Your task to perform on an android device: check data usage Image 0: 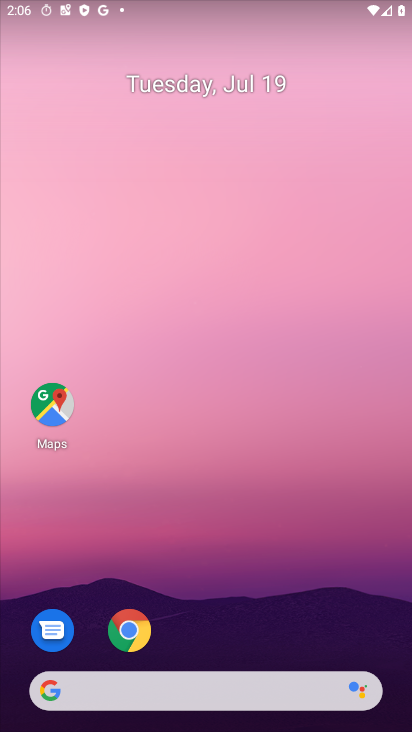
Step 0: drag from (294, 597) to (314, 0)
Your task to perform on an android device: check data usage Image 1: 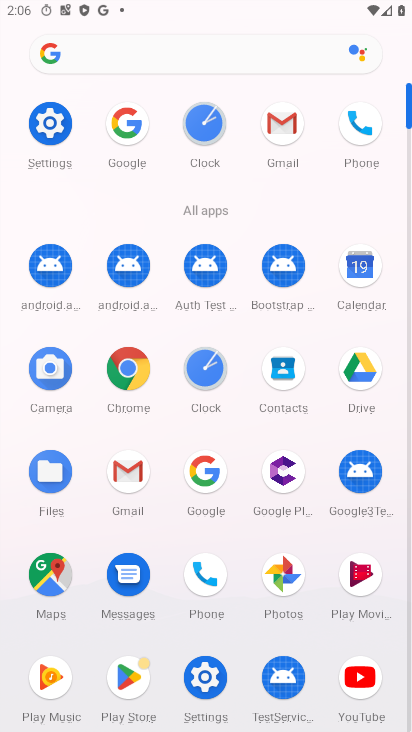
Step 1: click (36, 128)
Your task to perform on an android device: check data usage Image 2: 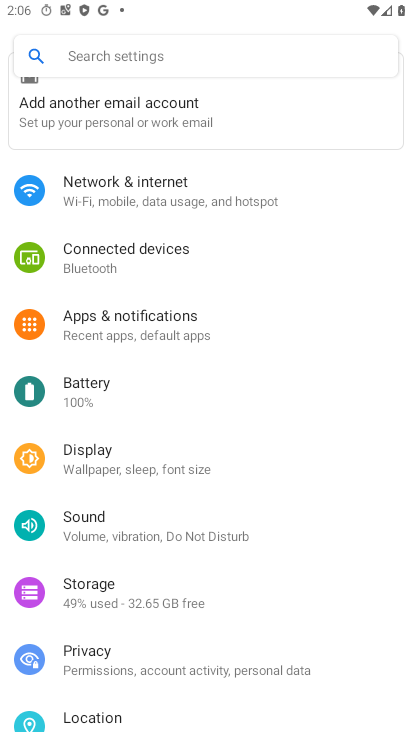
Step 2: click (166, 209)
Your task to perform on an android device: check data usage Image 3: 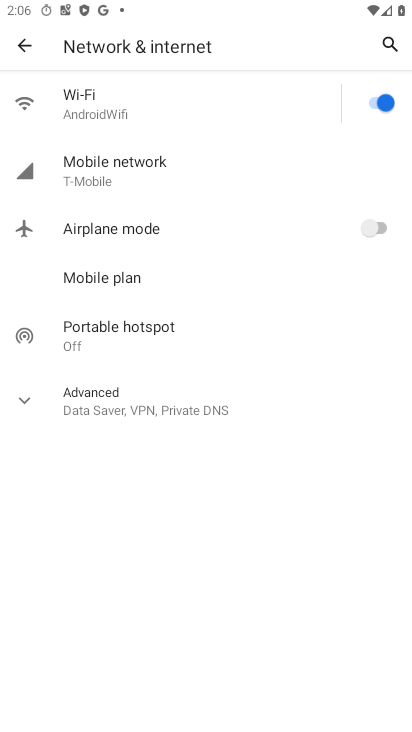
Step 3: click (90, 183)
Your task to perform on an android device: check data usage Image 4: 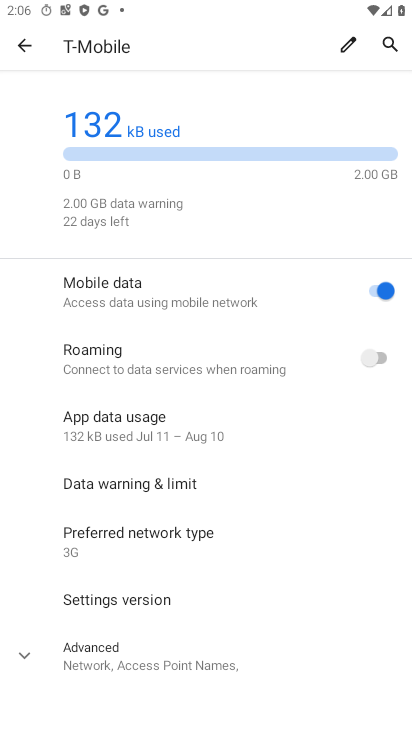
Step 4: click (107, 423)
Your task to perform on an android device: check data usage Image 5: 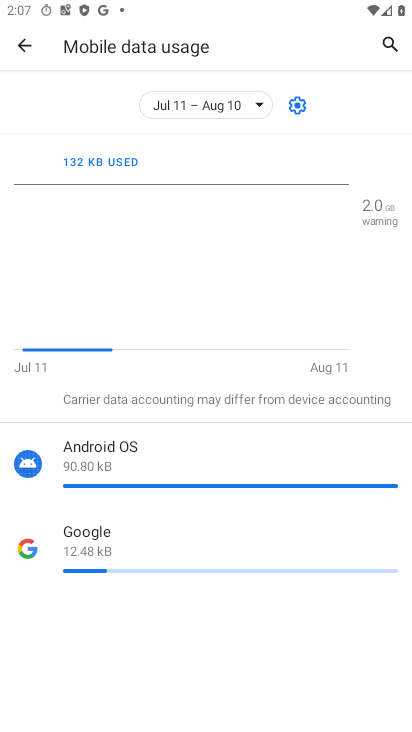
Step 5: task complete